Your task to perform on an android device: Open the phone app and click the voicemail tab. Image 0: 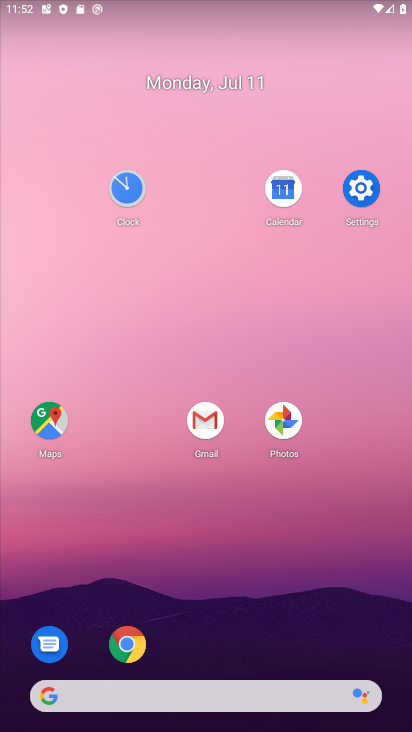
Step 0: drag from (356, 634) to (312, 220)
Your task to perform on an android device: Open the phone app and click the voicemail tab. Image 1: 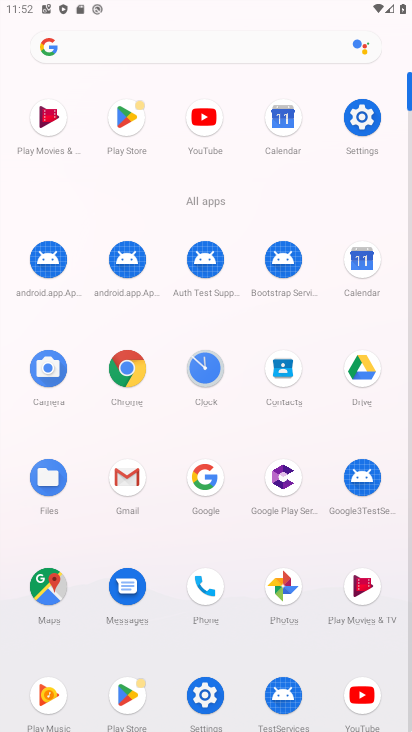
Step 1: click (200, 586)
Your task to perform on an android device: Open the phone app and click the voicemail tab. Image 2: 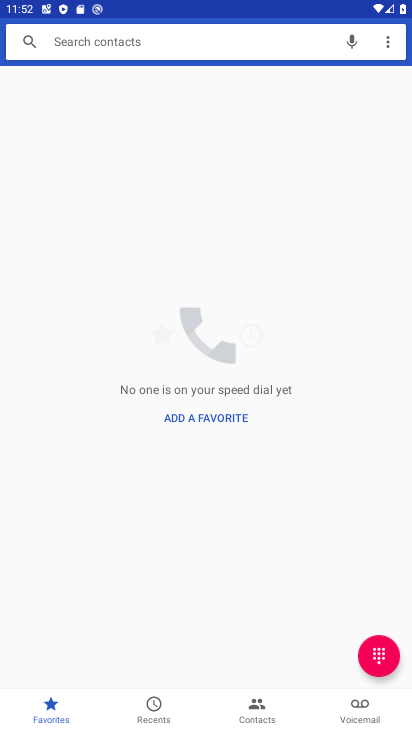
Step 2: click (368, 721)
Your task to perform on an android device: Open the phone app and click the voicemail tab. Image 3: 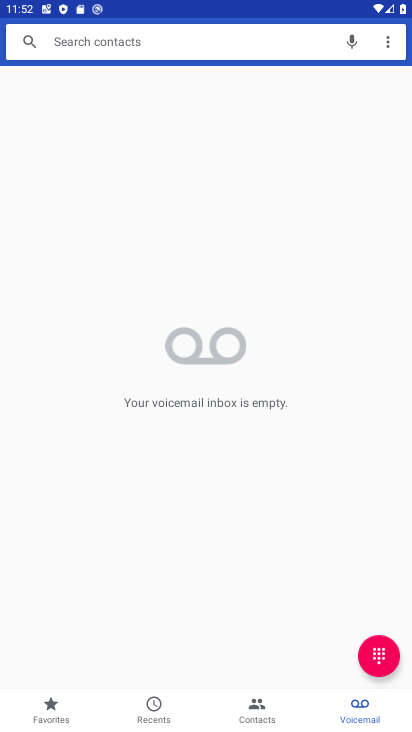
Step 3: task complete